Your task to perform on an android device: Open calendar and show me the fourth week of next month Image 0: 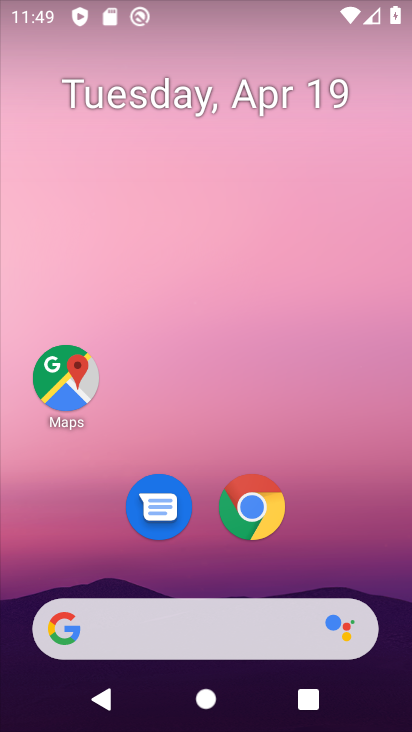
Step 0: drag from (368, 536) to (376, 109)
Your task to perform on an android device: Open calendar and show me the fourth week of next month Image 1: 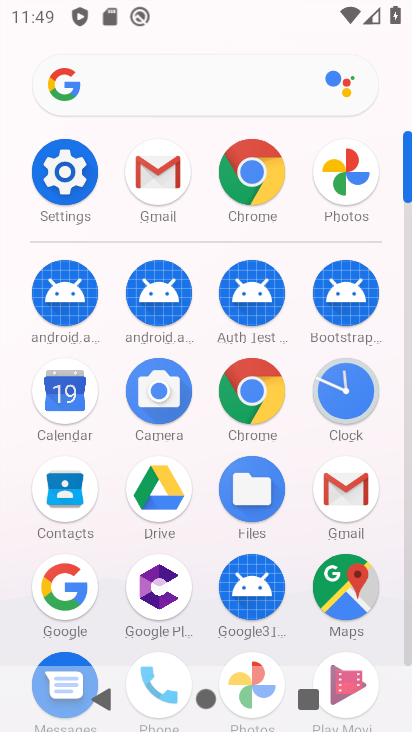
Step 1: click (54, 394)
Your task to perform on an android device: Open calendar and show me the fourth week of next month Image 2: 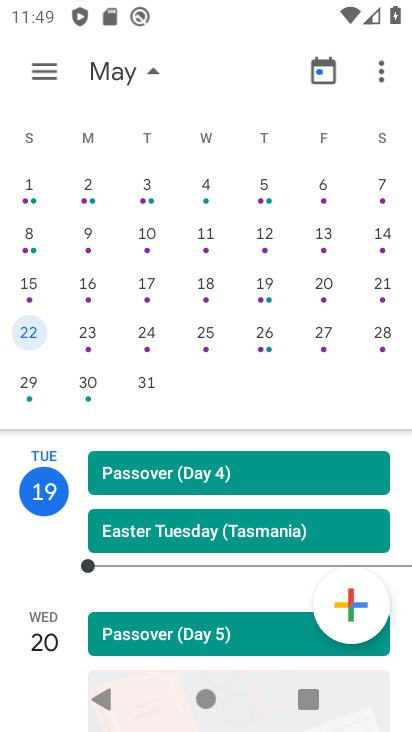
Step 2: click (35, 339)
Your task to perform on an android device: Open calendar and show me the fourth week of next month Image 3: 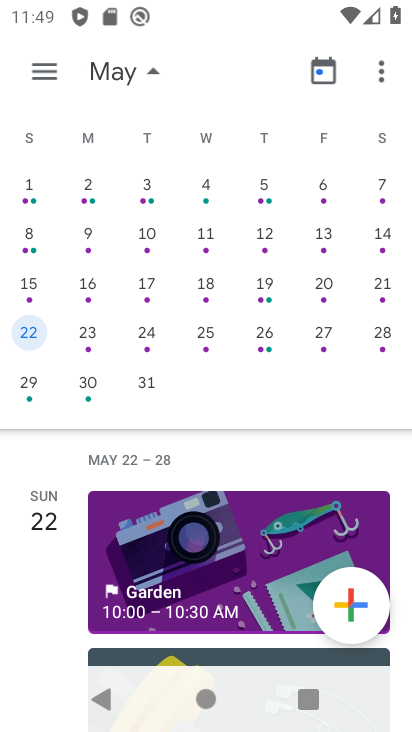
Step 3: task complete